Your task to perform on an android device: Search for pizza restaurants on Maps Image 0: 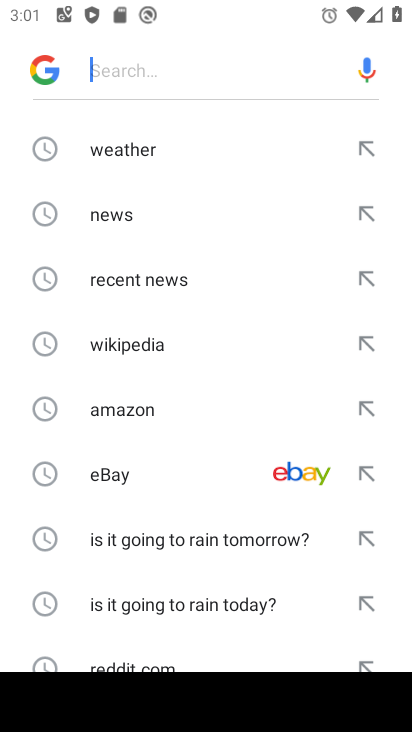
Step 0: press home button
Your task to perform on an android device: Search for pizza restaurants on Maps Image 1: 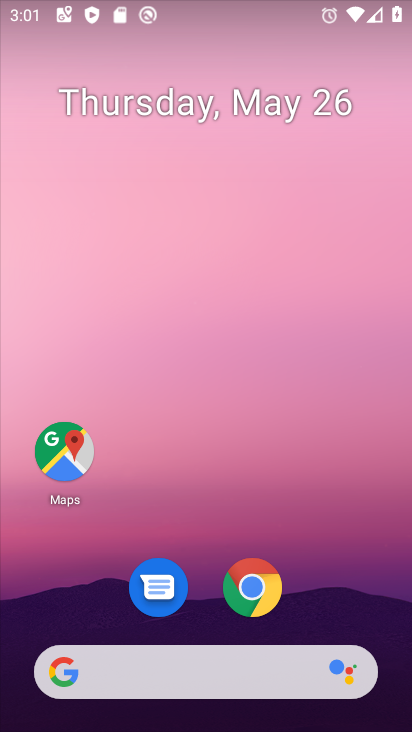
Step 1: drag from (372, 605) to (378, 244)
Your task to perform on an android device: Search for pizza restaurants on Maps Image 2: 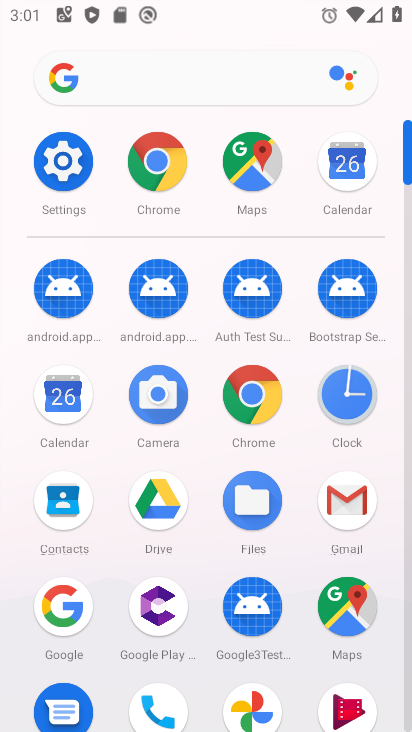
Step 2: click (365, 611)
Your task to perform on an android device: Search for pizza restaurants on Maps Image 3: 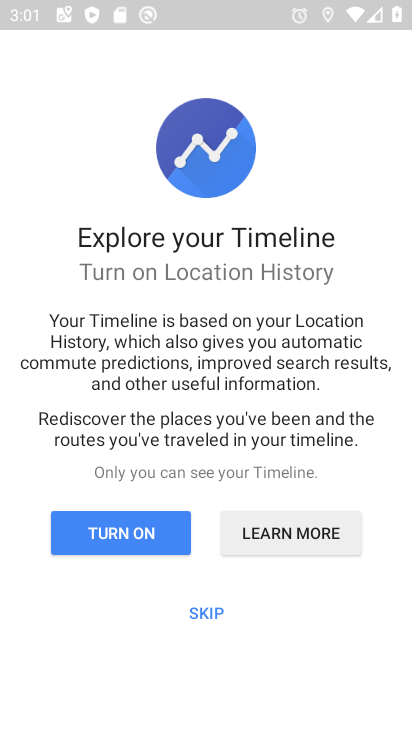
Step 3: click (224, 622)
Your task to perform on an android device: Search for pizza restaurants on Maps Image 4: 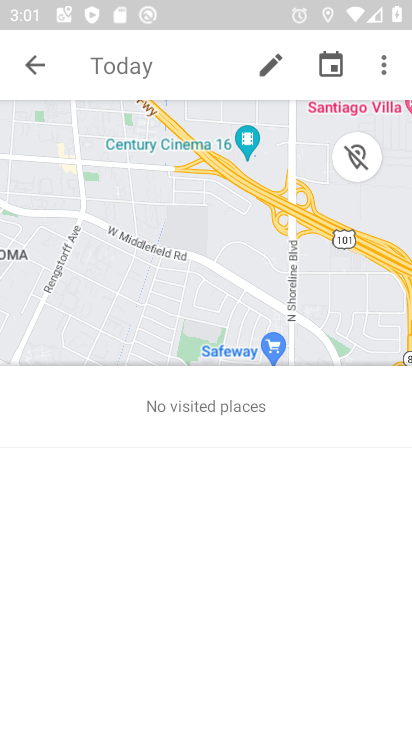
Step 4: click (27, 71)
Your task to perform on an android device: Search for pizza restaurants on Maps Image 5: 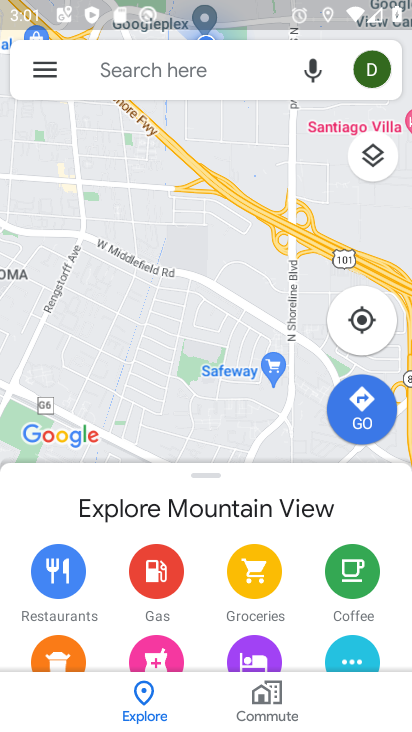
Step 5: click (174, 69)
Your task to perform on an android device: Search for pizza restaurants on Maps Image 6: 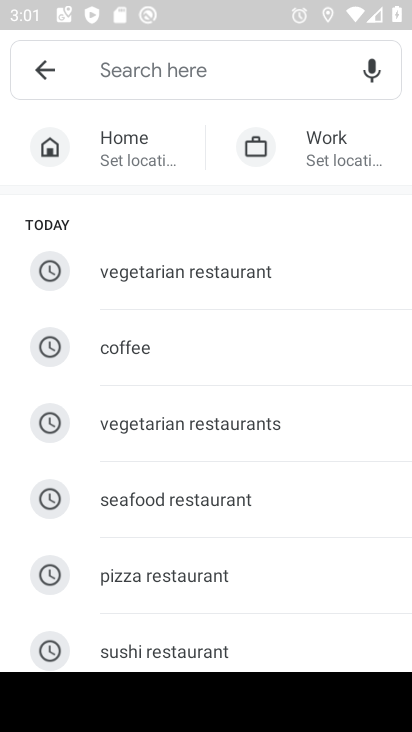
Step 6: type "pizzaa restaurants"
Your task to perform on an android device: Search for pizza restaurants on Maps Image 7: 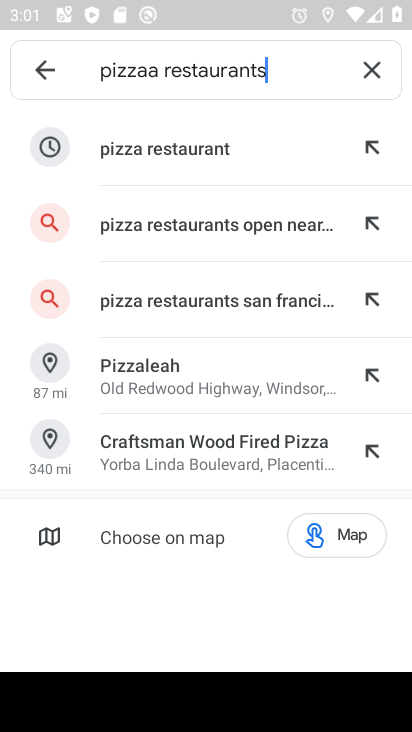
Step 7: click (208, 170)
Your task to perform on an android device: Search for pizza restaurants on Maps Image 8: 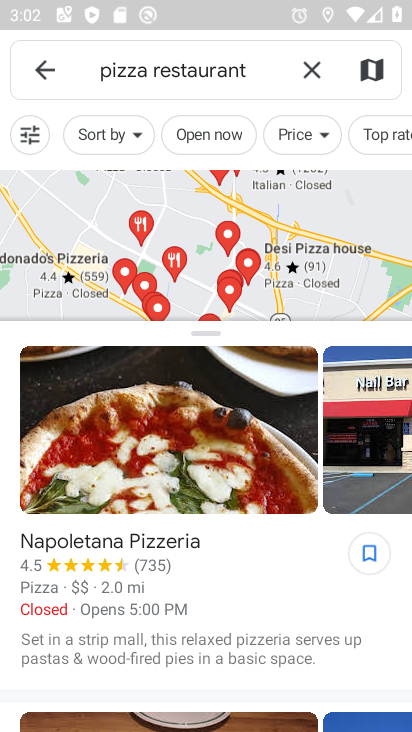
Step 8: task complete